Your task to perform on an android device: open app "Spotify: Music and Podcasts" Image 0: 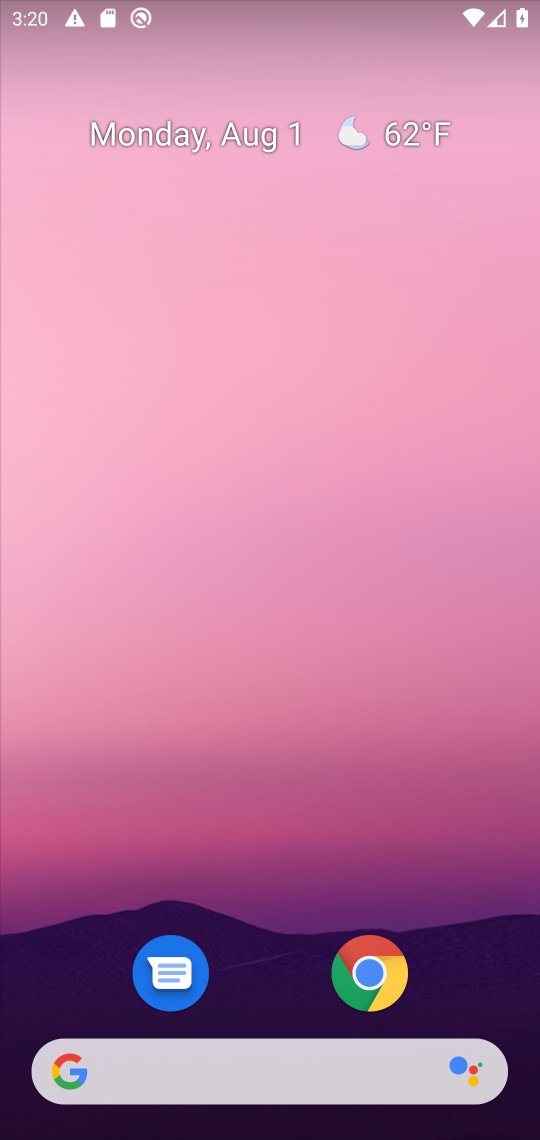
Step 0: press back button
Your task to perform on an android device: open app "Spotify: Music and Podcasts" Image 1: 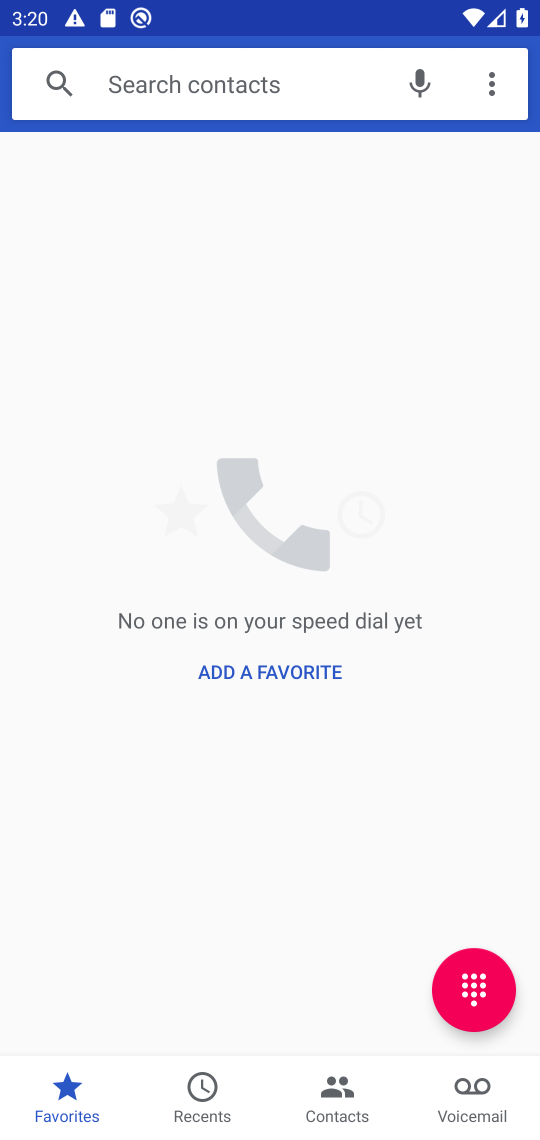
Step 1: press home button
Your task to perform on an android device: open app "Spotify: Music and Podcasts" Image 2: 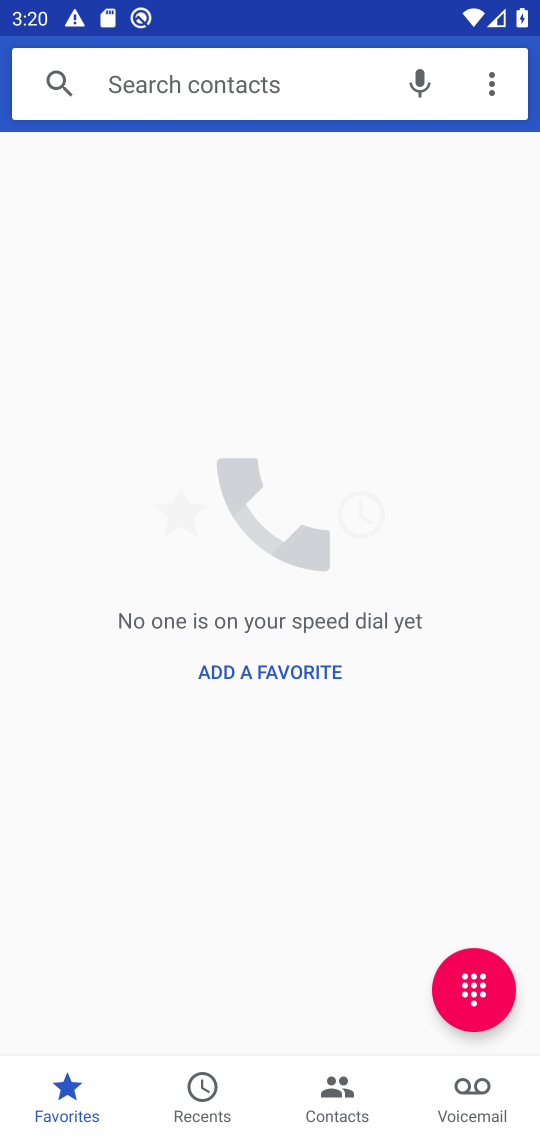
Step 2: click (235, 213)
Your task to perform on an android device: open app "Spotify: Music and Podcasts" Image 3: 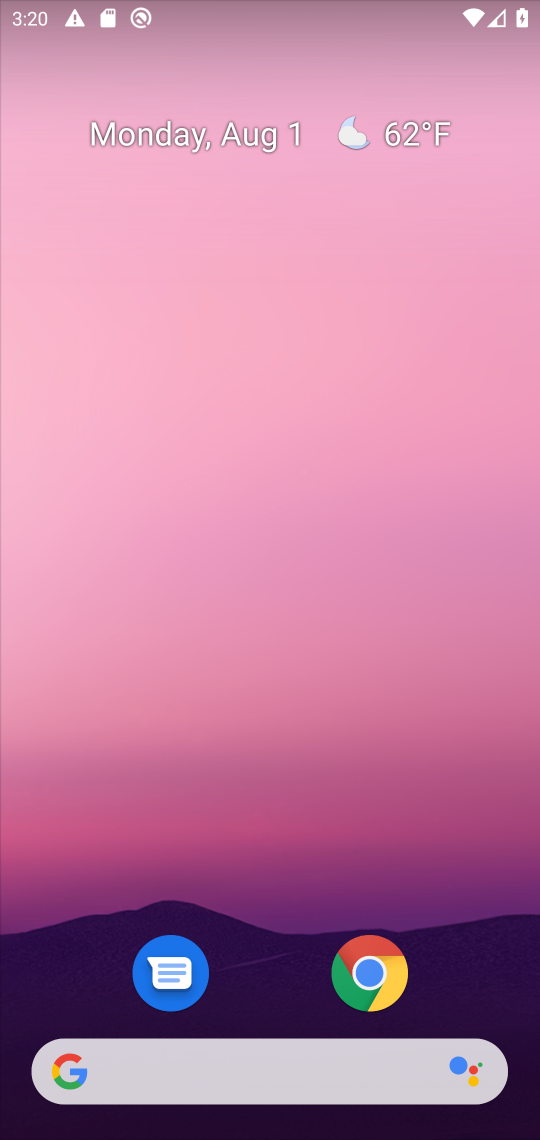
Step 3: press back button
Your task to perform on an android device: open app "Spotify: Music and Podcasts" Image 4: 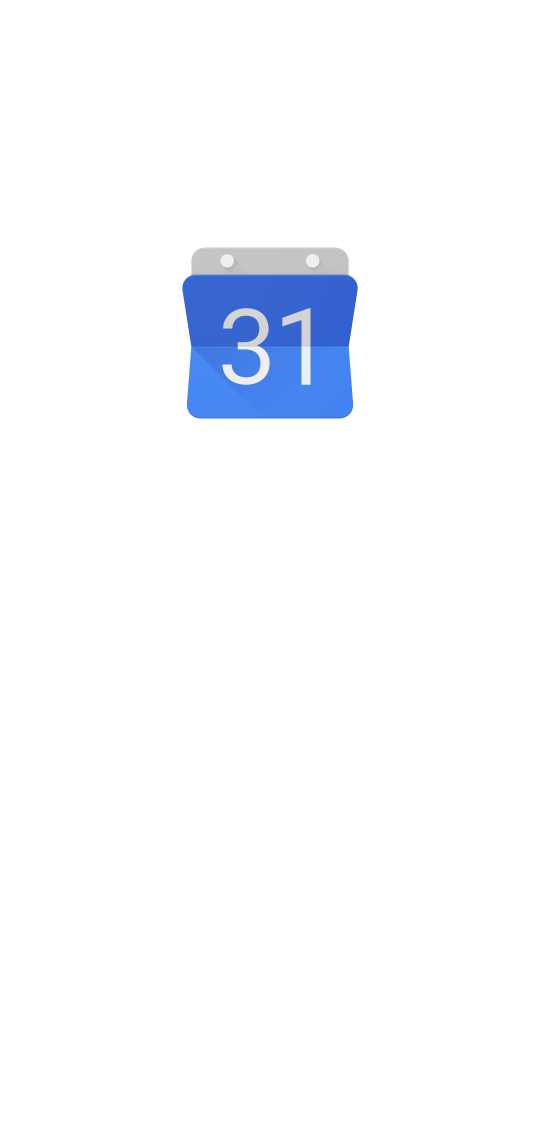
Step 4: drag from (15, 76) to (79, 63)
Your task to perform on an android device: open app "Spotify: Music and Podcasts" Image 5: 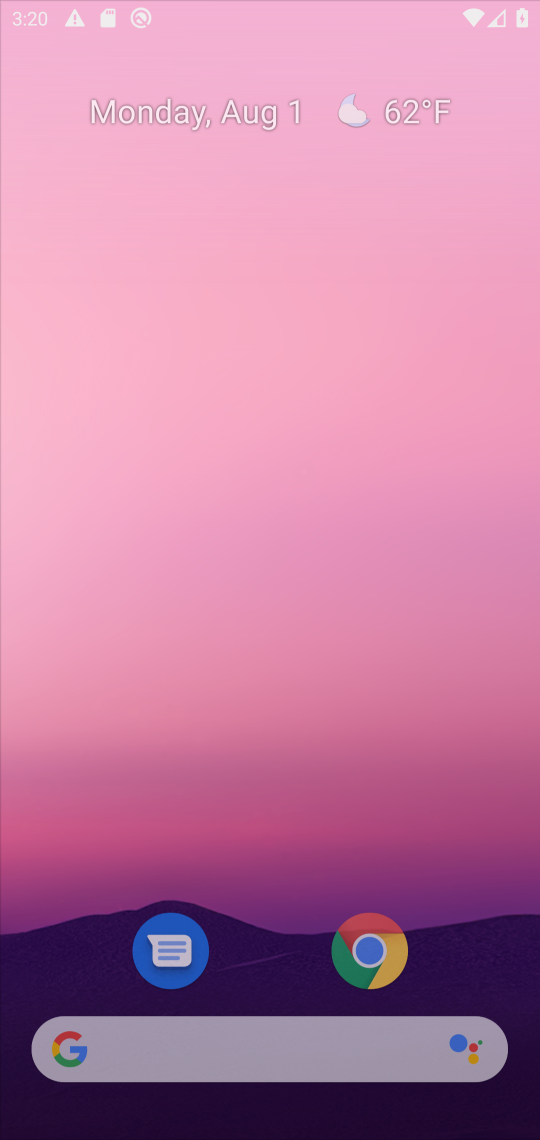
Step 5: drag from (271, 781) to (213, 70)
Your task to perform on an android device: open app "Spotify: Music and Podcasts" Image 6: 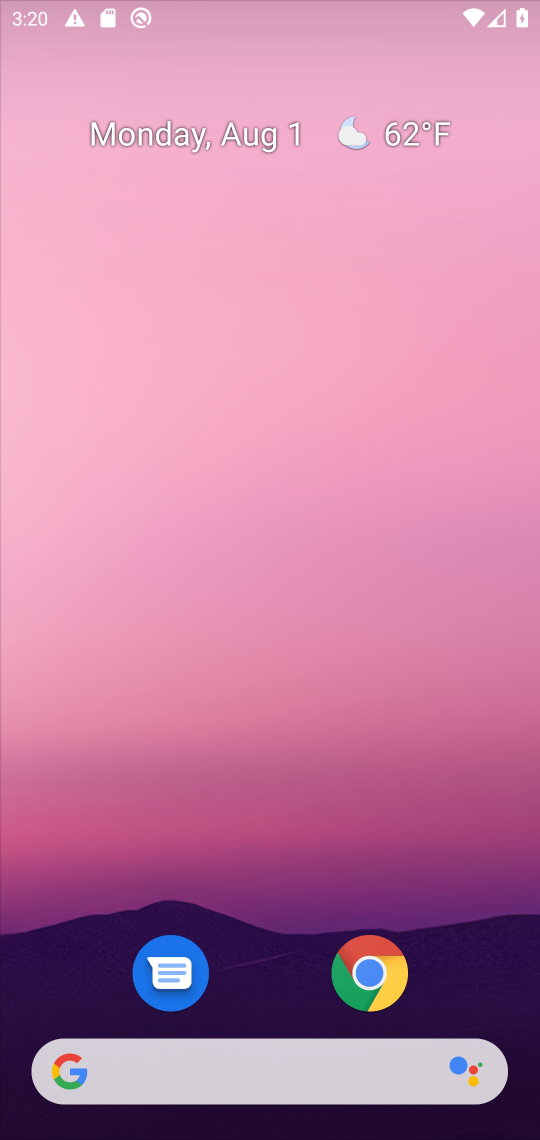
Step 6: drag from (388, 724) to (244, 11)
Your task to perform on an android device: open app "Spotify: Music and Podcasts" Image 7: 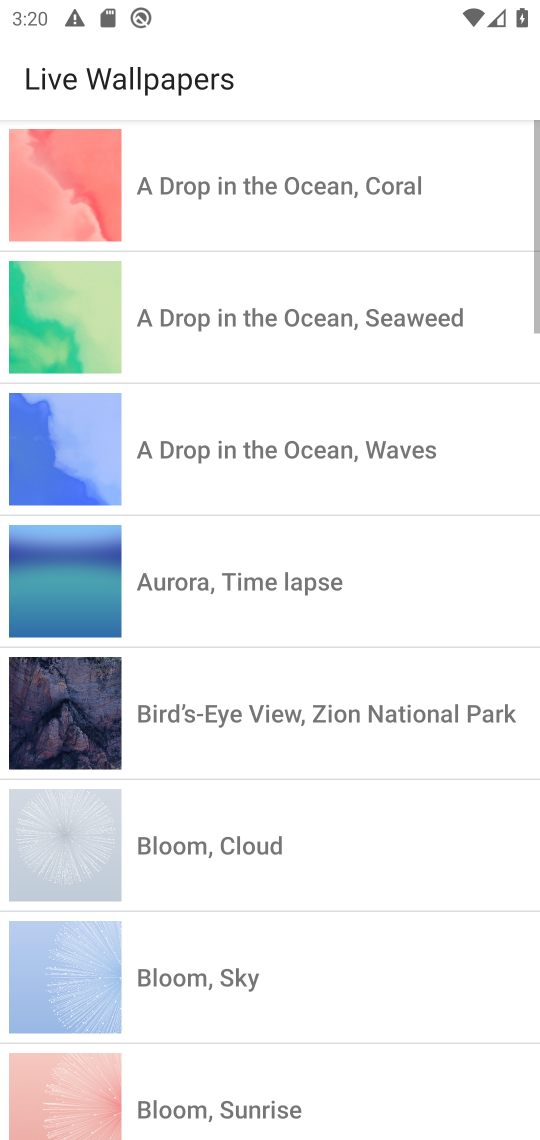
Step 7: press back button
Your task to perform on an android device: open app "Spotify: Music and Podcasts" Image 8: 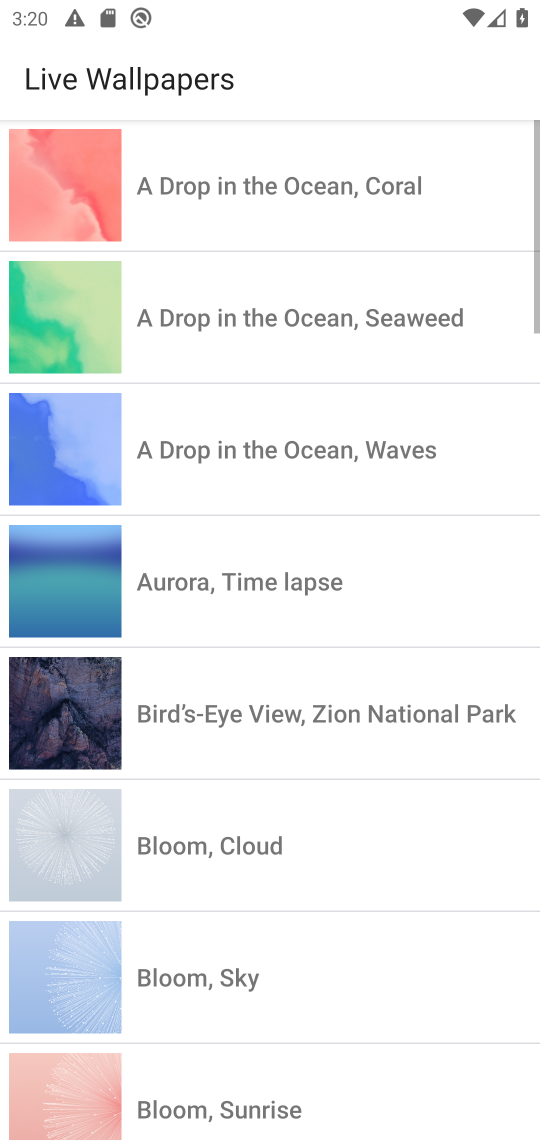
Step 8: press back button
Your task to perform on an android device: open app "Spotify: Music and Podcasts" Image 9: 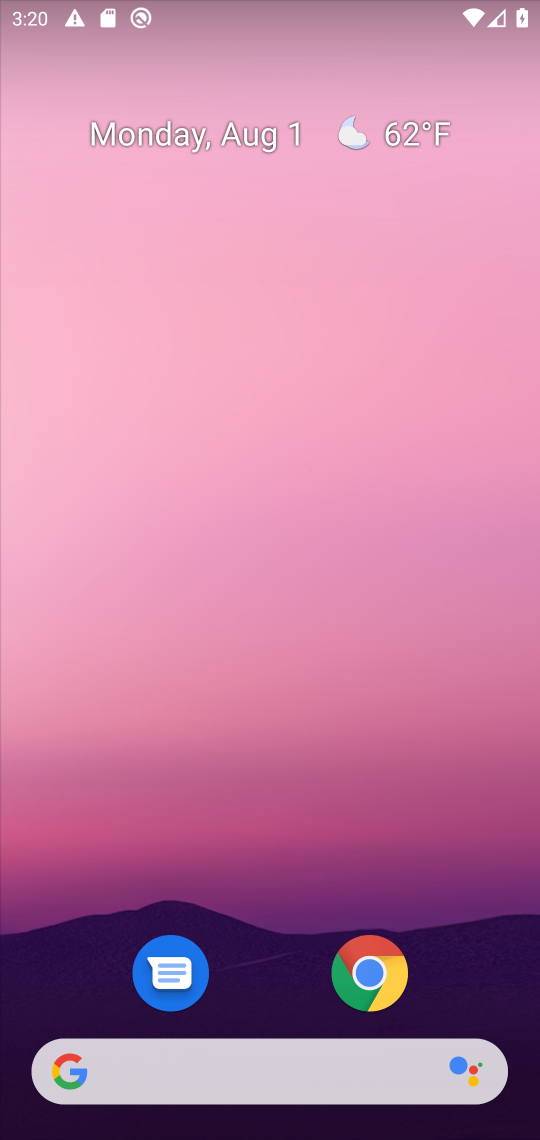
Step 9: drag from (321, 846) to (157, 319)
Your task to perform on an android device: open app "Spotify: Music and Podcasts" Image 10: 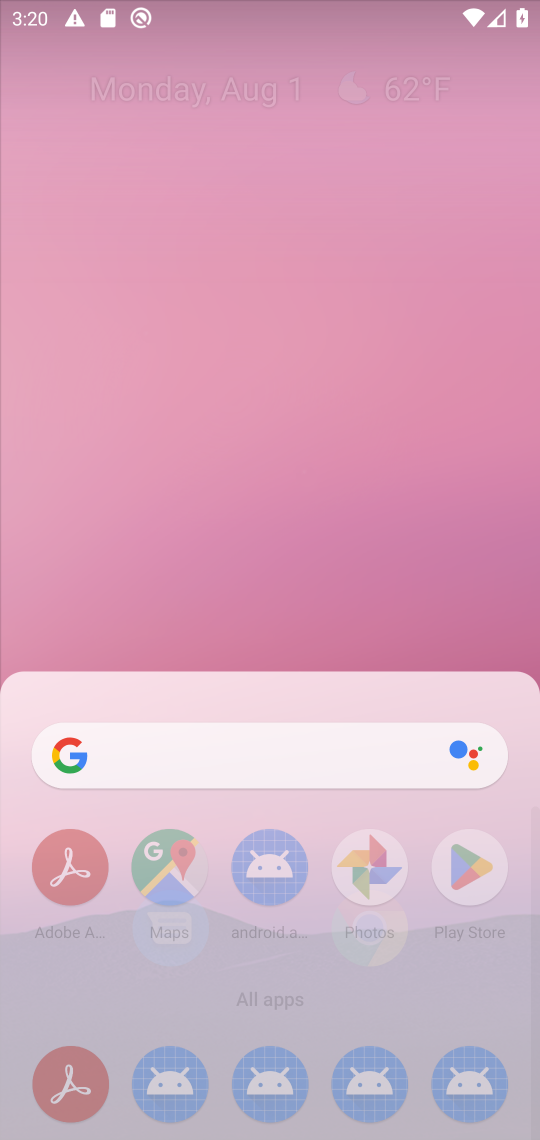
Step 10: drag from (183, 775) to (64, 306)
Your task to perform on an android device: open app "Spotify: Music and Podcasts" Image 11: 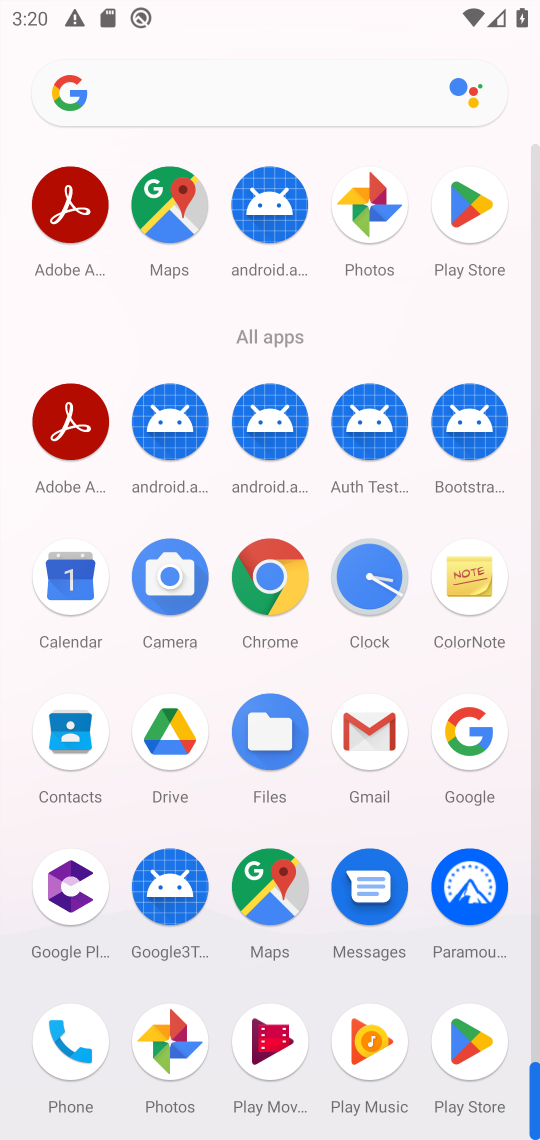
Step 11: click (463, 209)
Your task to perform on an android device: open app "Spotify: Music and Podcasts" Image 12: 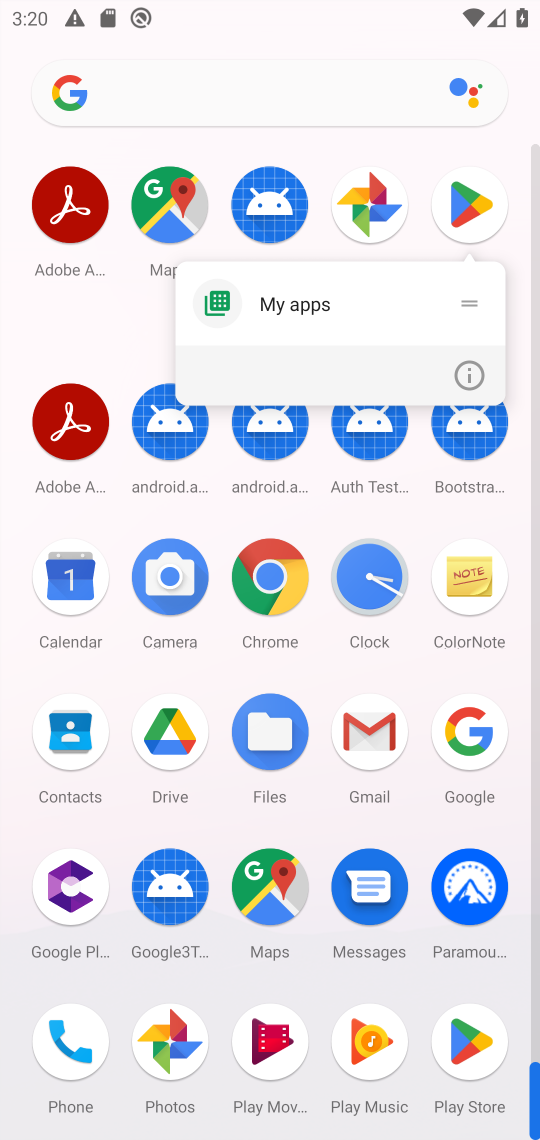
Step 12: click (465, 214)
Your task to perform on an android device: open app "Spotify: Music and Podcasts" Image 13: 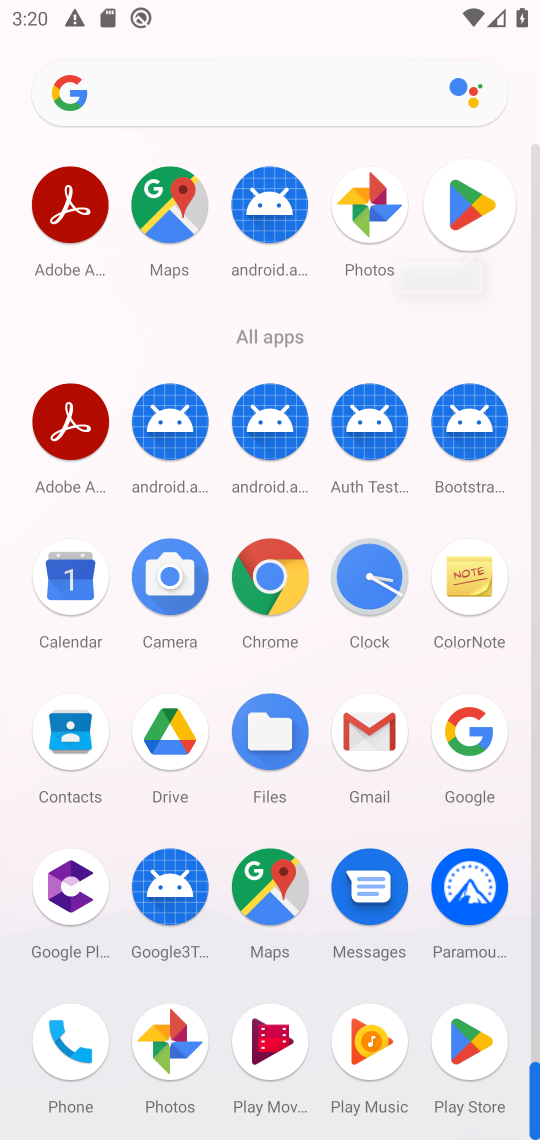
Step 13: click (461, 214)
Your task to perform on an android device: open app "Spotify: Music and Podcasts" Image 14: 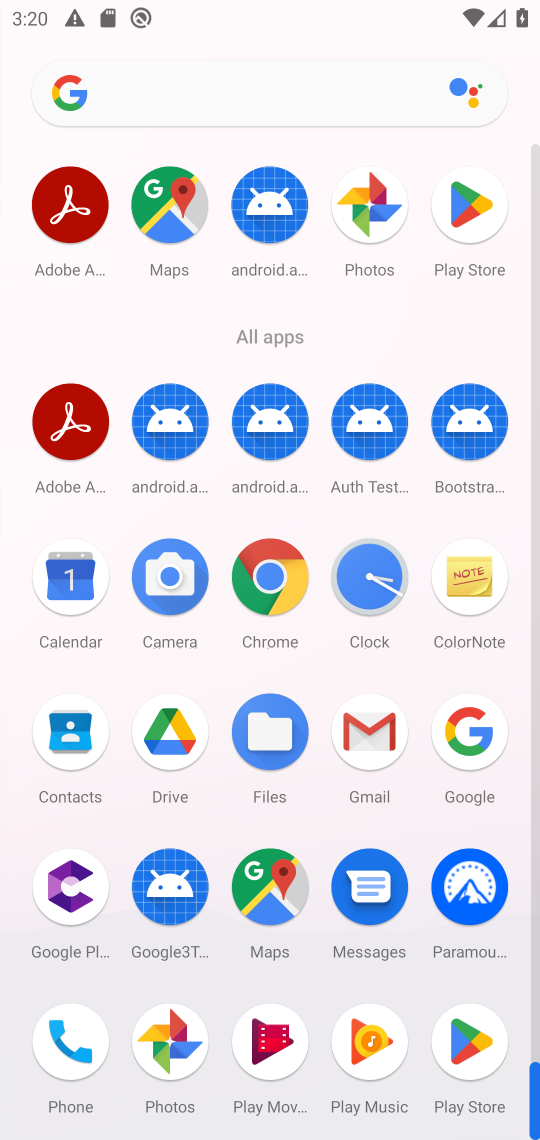
Step 14: click (461, 229)
Your task to perform on an android device: open app "Spotify: Music and Podcasts" Image 15: 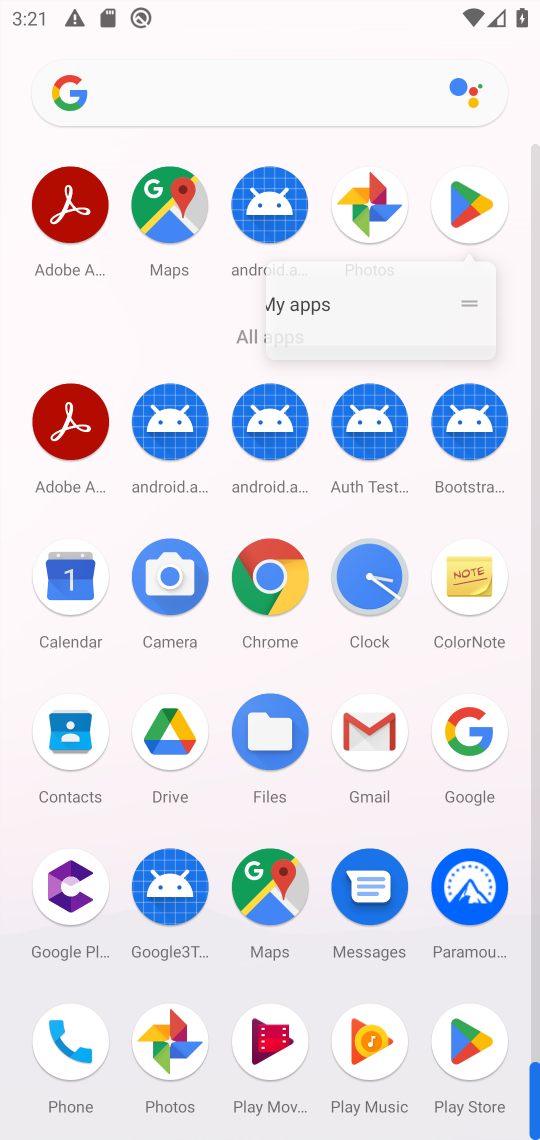
Step 15: click (460, 235)
Your task to perform on an android device: open app "Spotify: Music and Podcasts" Image 16: 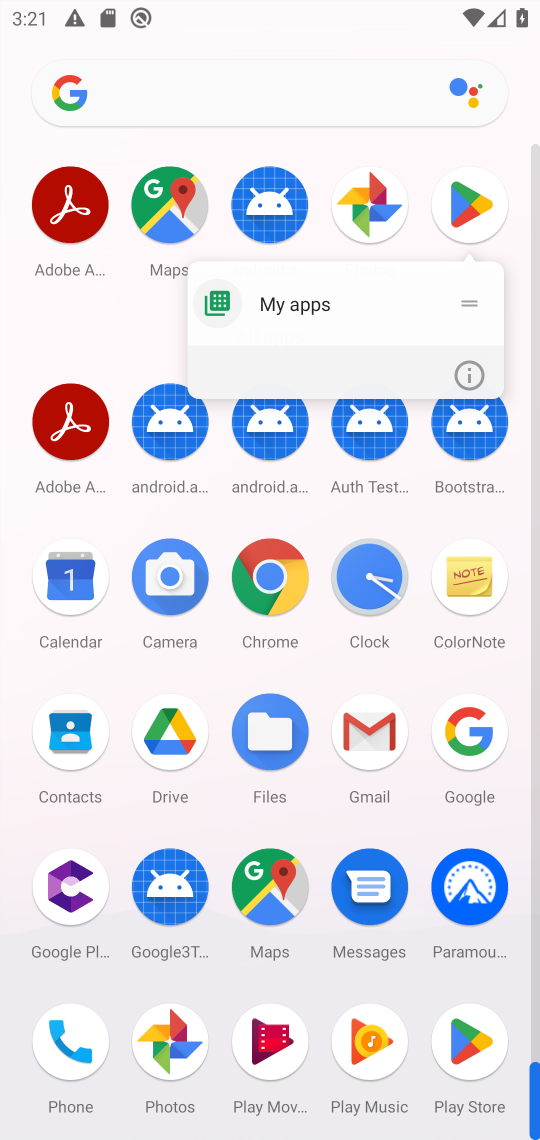
Step 16: click (460, 235)
Your task to perform on an android device: open app "Spotify: Music and Podcasts" Image 17: 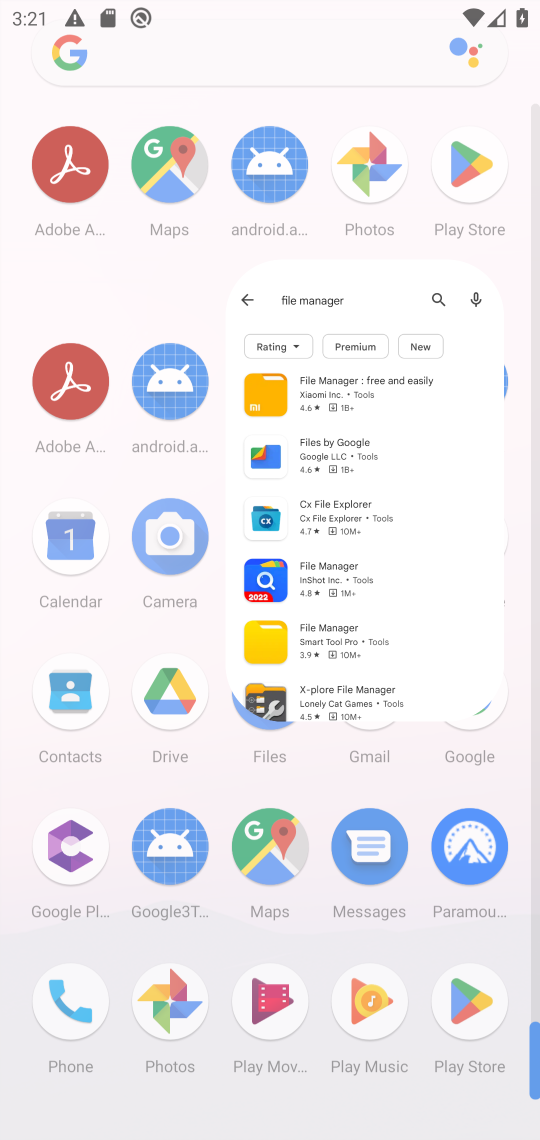
Step 17: click (459, 241)
Your task to perform on an android device: open app "Spotify: Music and Podcasts" Image 18: 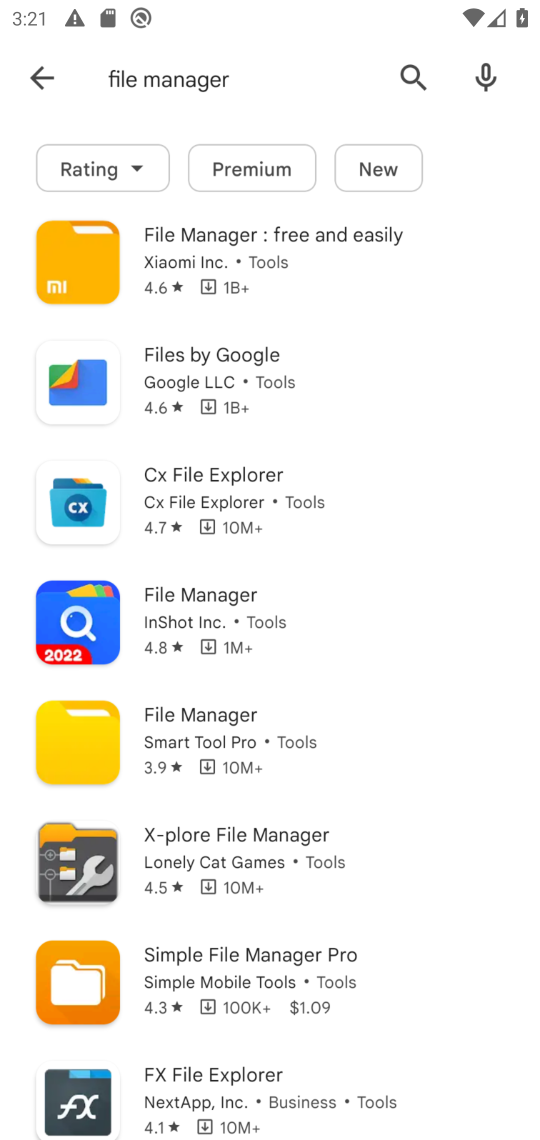
Step 18: click (465, 249)
Your task to perform on an android device: open app "Spotify: Music and Podcasts" Image 19: 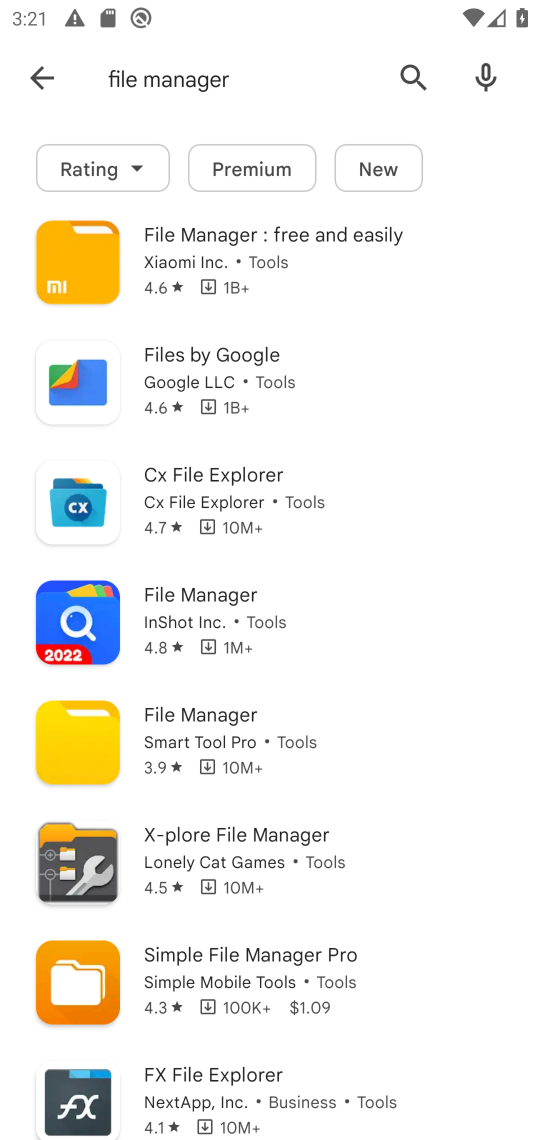
Step 19: click (470, 260)
Your task to perform on an android device: open app "Spotify: Music and Podcasts" Image 20: 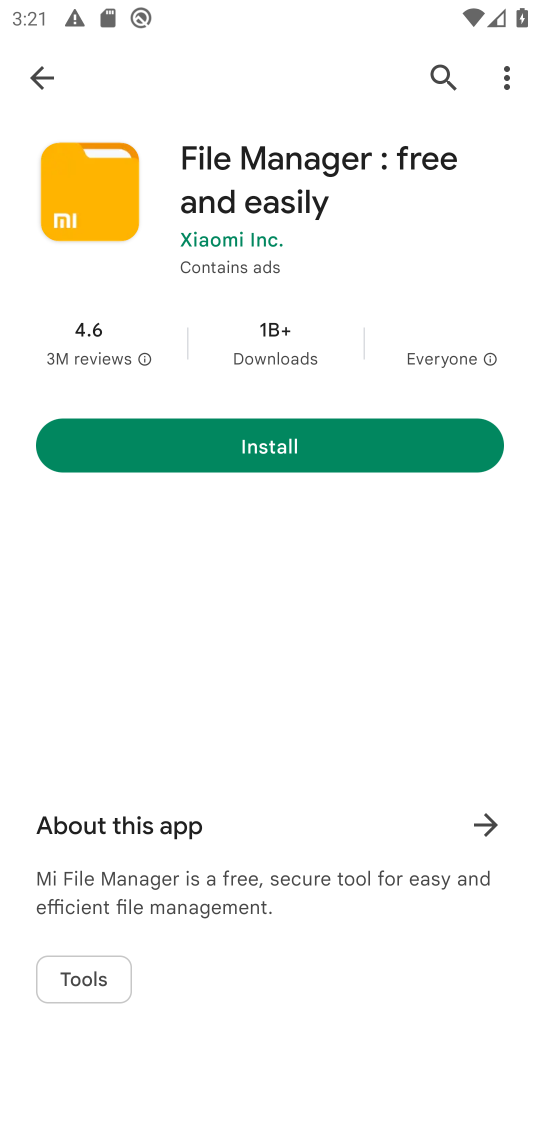
Step 20: click (36, 86)
Your task to perform on an android device: open app "Spotify: Music and Podcasts" Image 21: 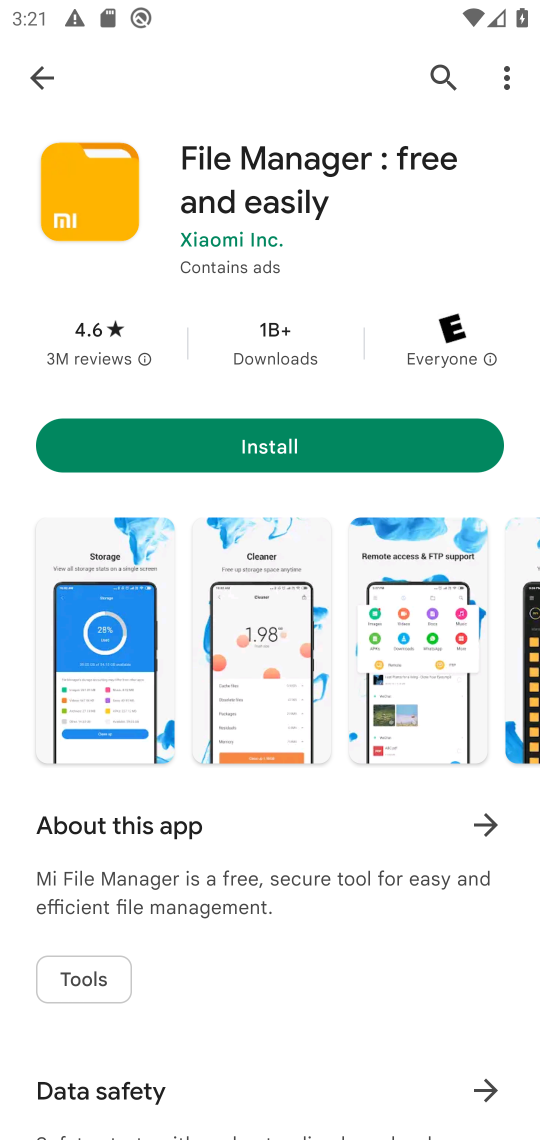
Step 21: click (38, 89)
Your task to perform on an android device: open app "Spotify: Music and Podcasts" Image 22: 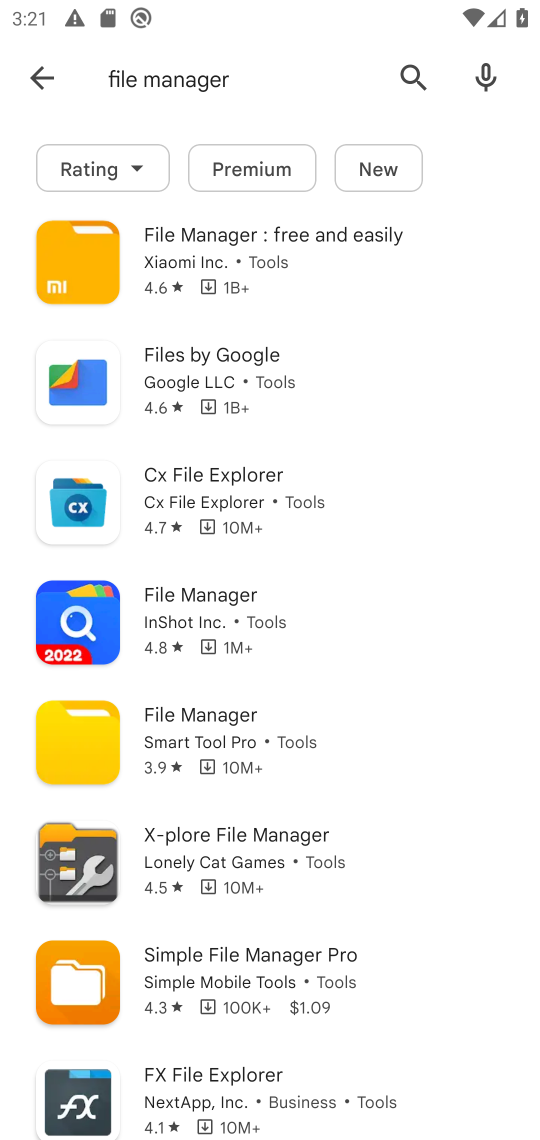
Step 22: click (21, 69)
Your task to perform on an android device: open app "Spotify: Music and Podcasts" Image 23: 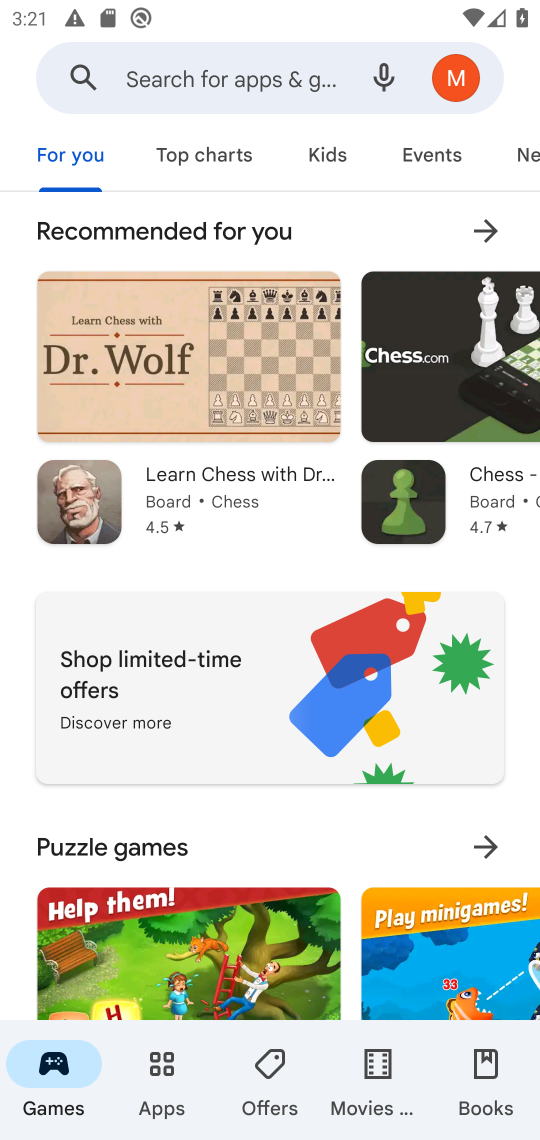
Step 23: click (163, 68)
Your task to perform on an android device: open app "Spotify: Music and Podcasts" Image 24: 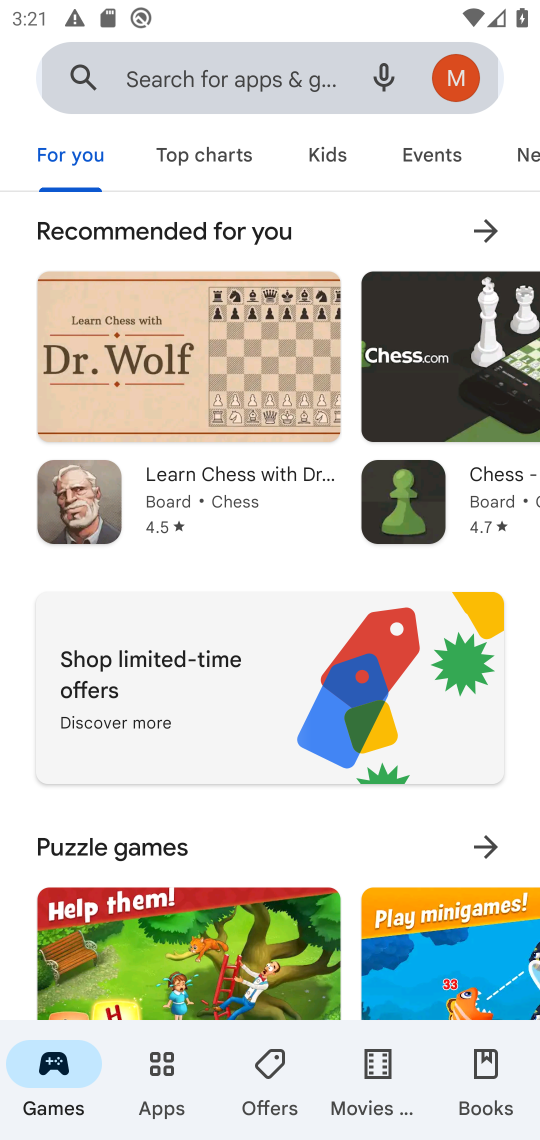
Step 24: click (175, 69)
Your task to perform on an android device: open app "Spotify: Music and Podcasts" Image 25: 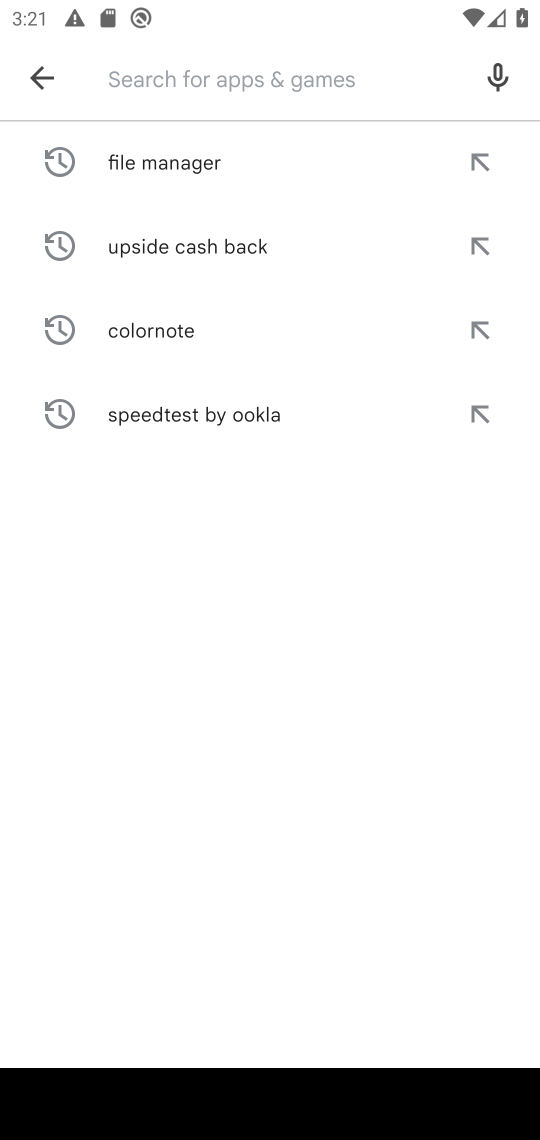
Step 25: type "music and podcats"
Your task to perform on an android device: open app "Spotify: Music and Podcasts" Image 26: 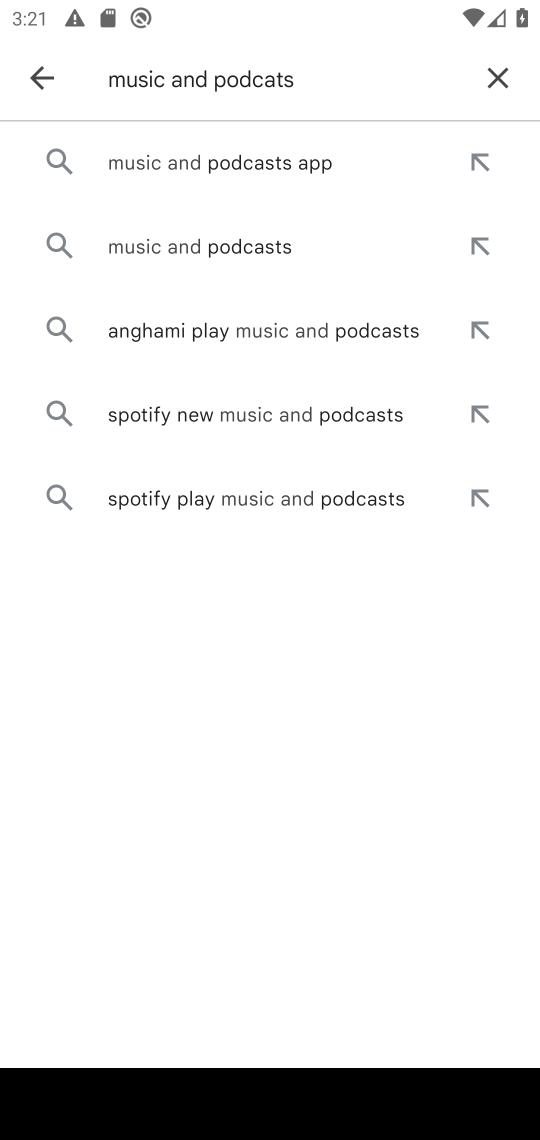
Step 26: click (246, 242)
Your task to perform on an android device: open app "Spotify: Music and Podcasts" Image 27: 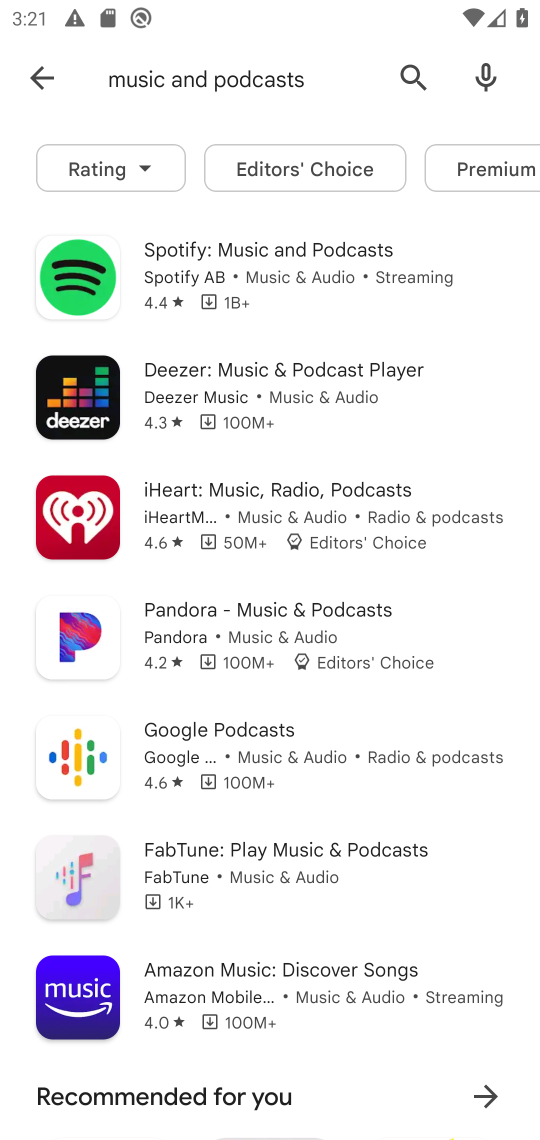
Step 27: click (190, 256)
Your task to perform on an android device: open app "Spotify: Music and Podcasts" Image 28: 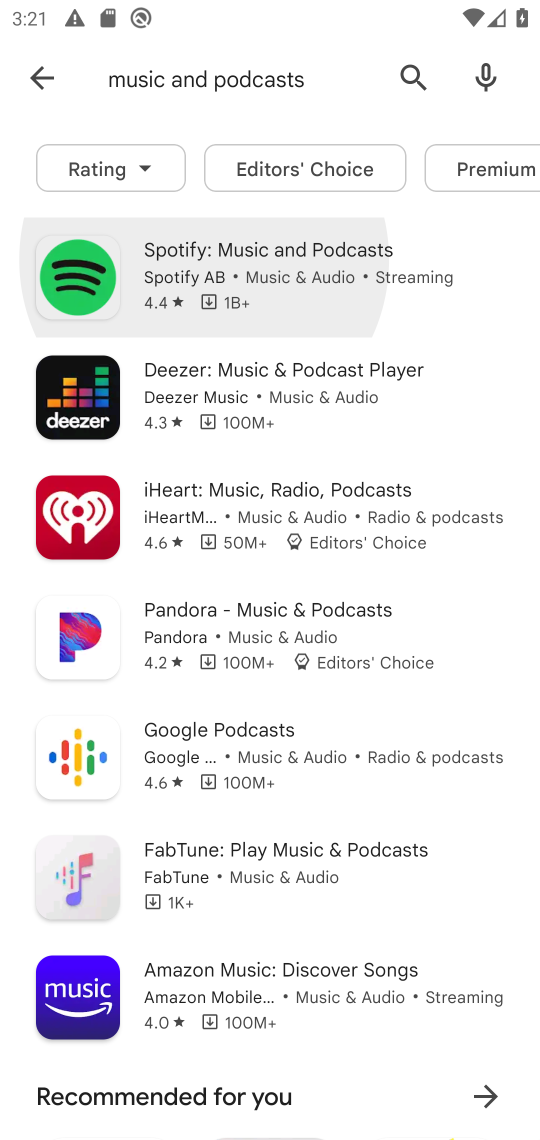
Step 28: click (191, 261)
Your task to perform on an android device: open app "Spotify: Music and Podcasts" Image 29: 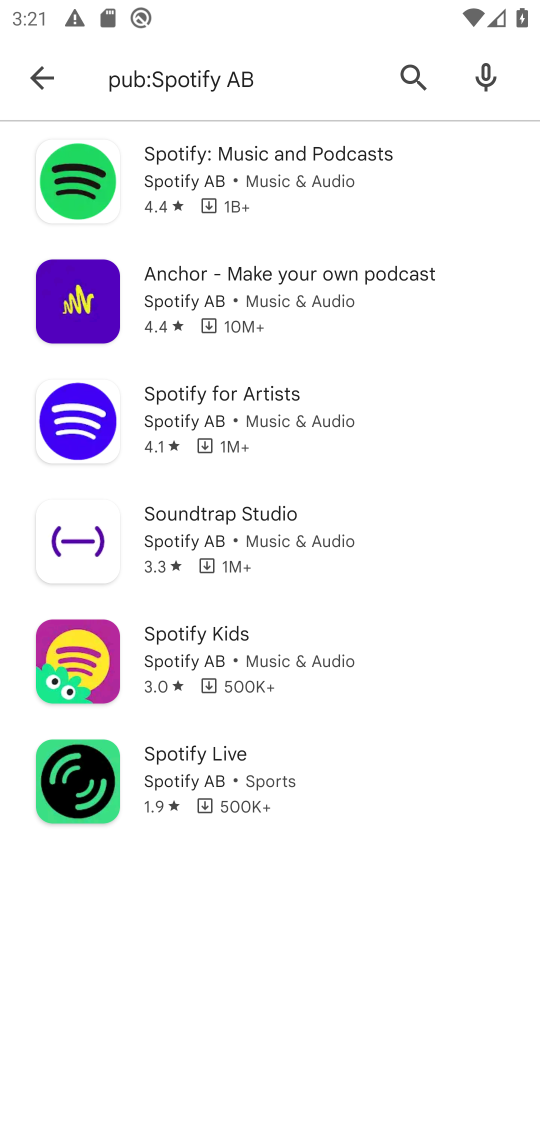
Step 29: click (294, 463)
Your task to perform on an android device: open app "Spotify: Music and Podcasts" Image 30: 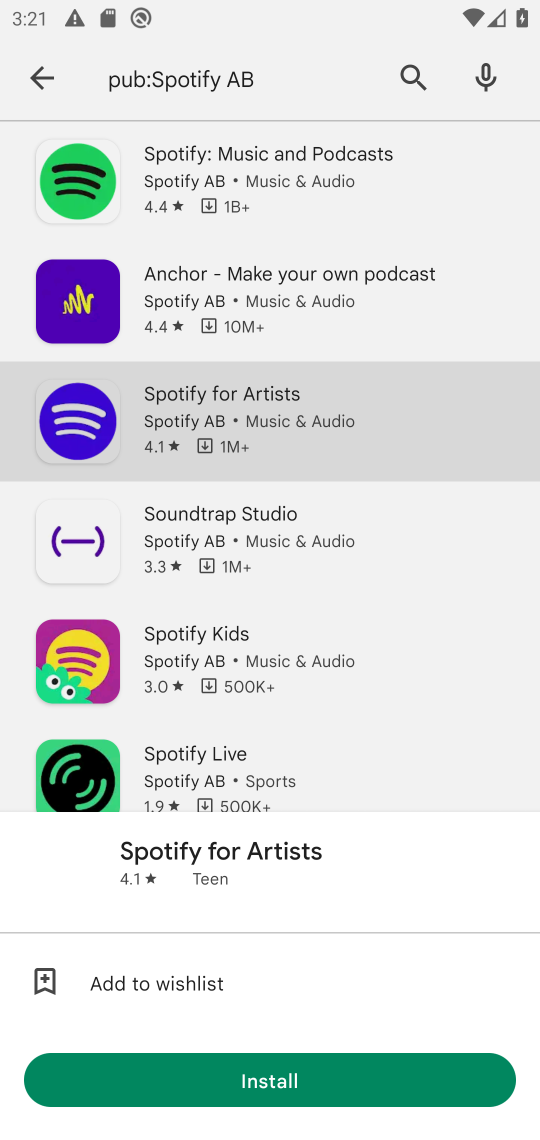
Step 30: click (189, 181)
Your task to perform on an android device: open app "Spotify: Music and Podcasts" Image 31: 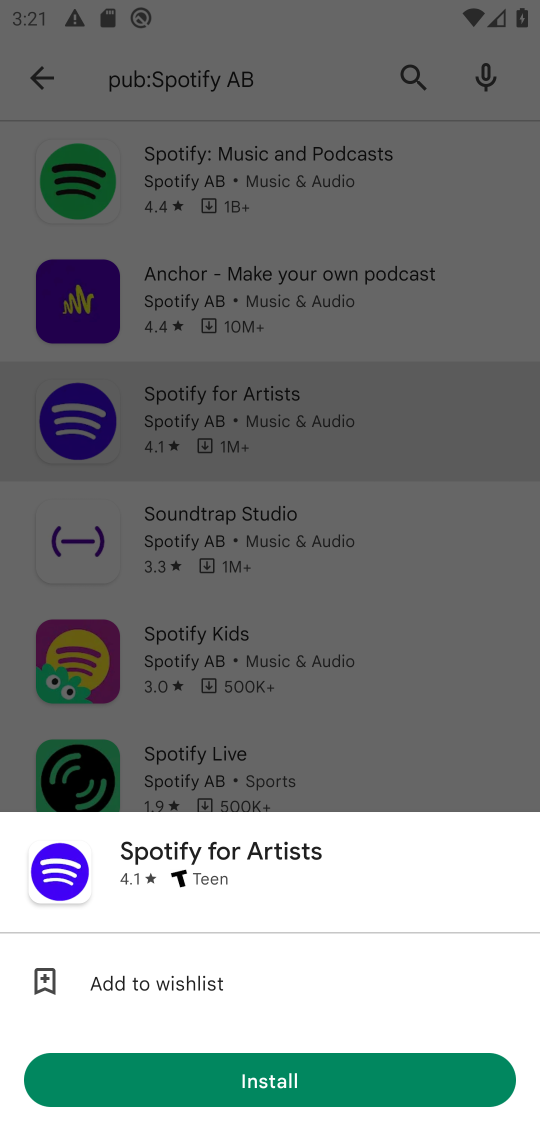
Step 31: click (189, 181)
Your task to perform on an android device: open app "Spotify: Music and Podcasts" Image 32: 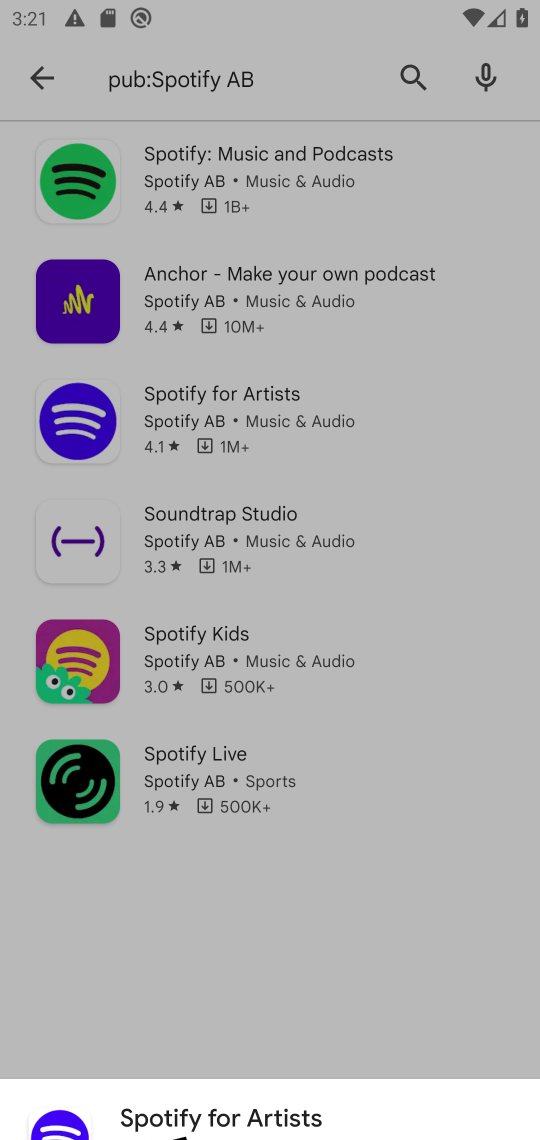
Step 32: click (189, 179)
Your task to perform on an android device: open app "Spotify: Music and Podcasts" Image 33: 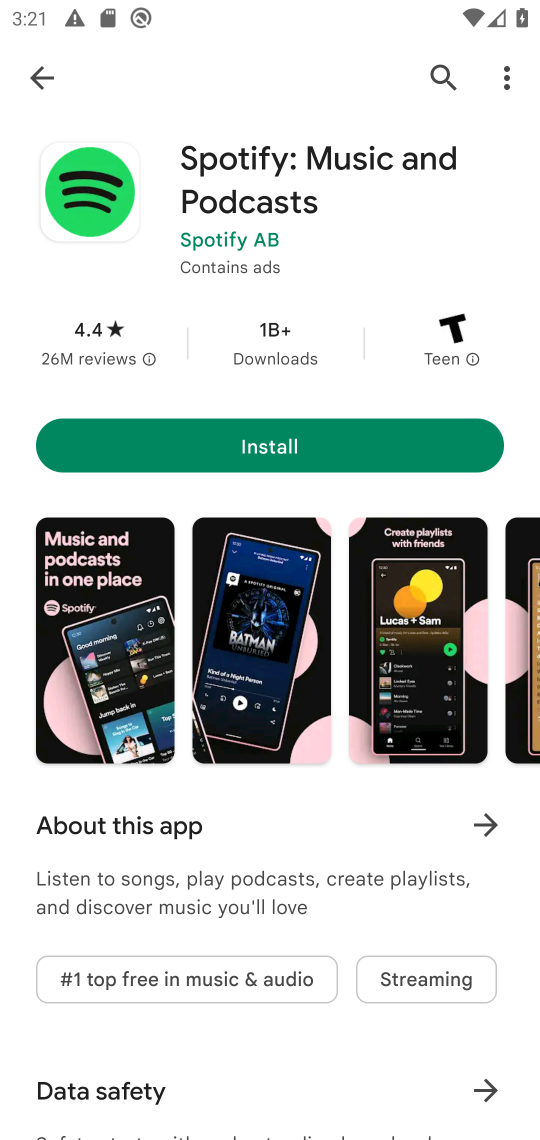
Step 33: click (266, 446)
Your task to perform on an android device: open app "Spotify: Music and Podcasts" Image 34: 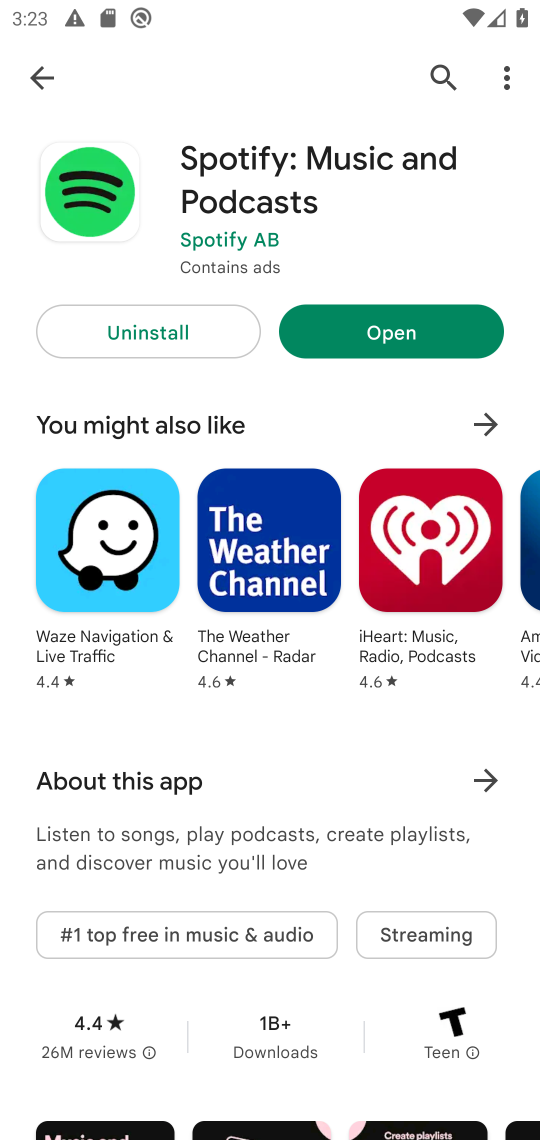
Step 34: click (374, 334)
Your task to perform on an android device: open app "Spotify: Music and Podcasts" Image 35: 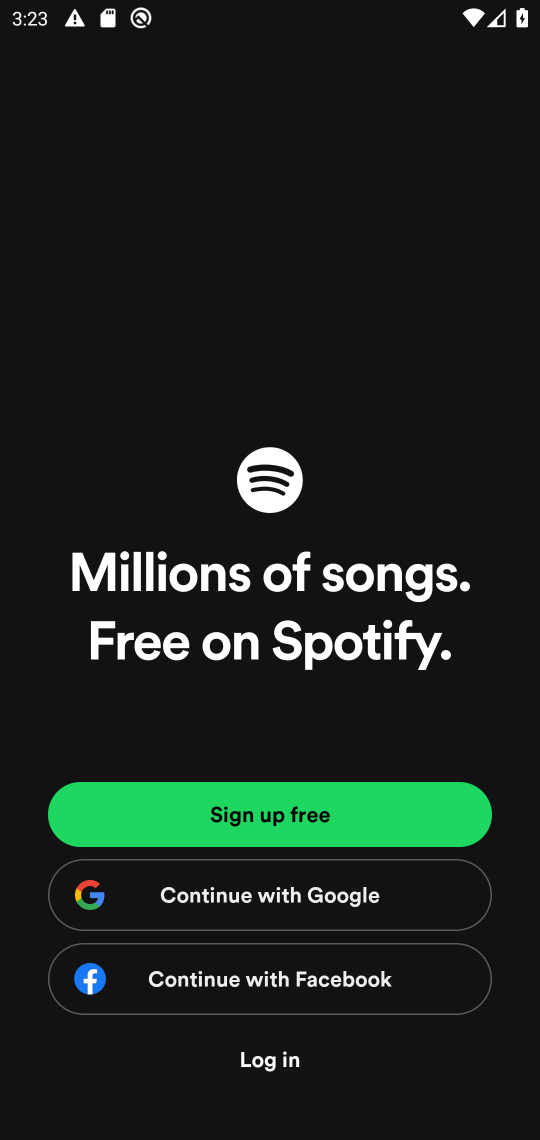
Step 35: task complete